Your task to perform on an android device: turn vacation reply on in the gmail app Image 0: 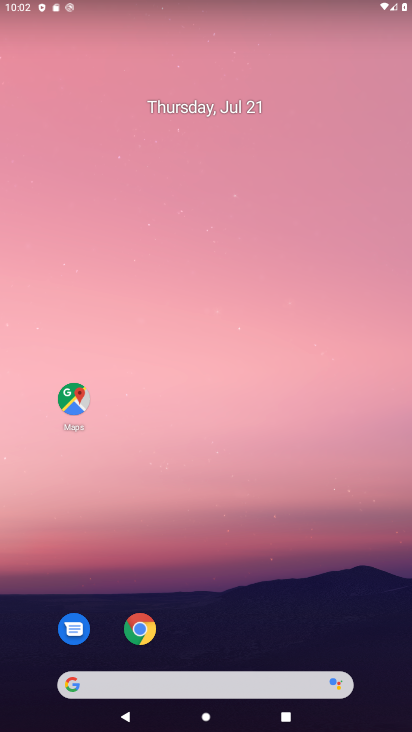
Step 0: drag from (277, 627) to (324, 174)
Your task to perform on an android device: turn vacation reply on in the gmail app Image 1: 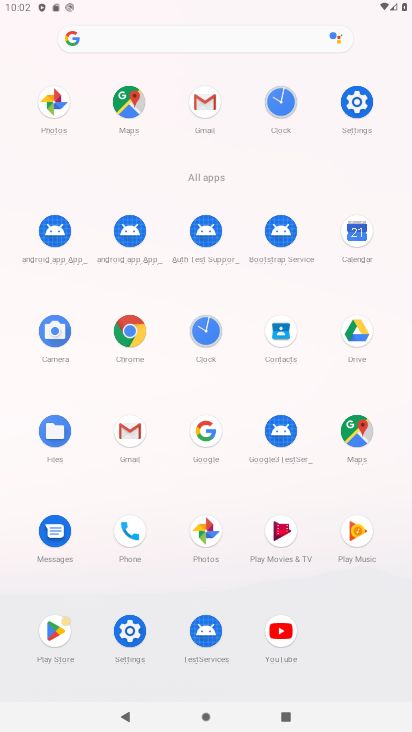
Step 1: click (203, 101)
Your task to perform on an android device: turn vacation reply on in the gmail app Image 2: 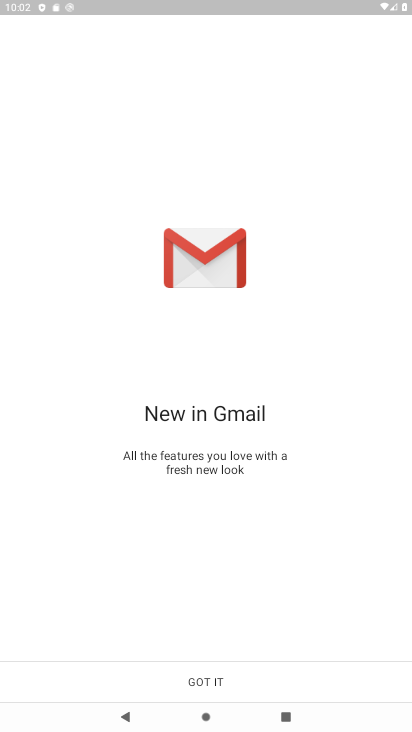
Step 2: click (201, 679)
Your task to perform on an android device: turn vacation reply on in the gmail app Image 3: 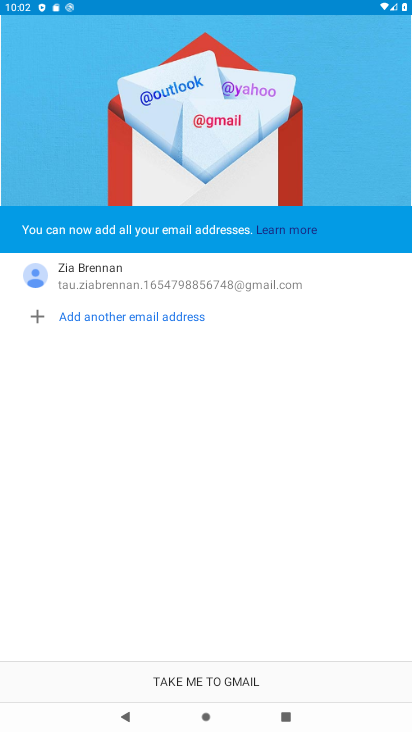
Step 3: click (203, 680)
Your task to perform on an android device: turn vacation reply on in the gmail app Image 4: 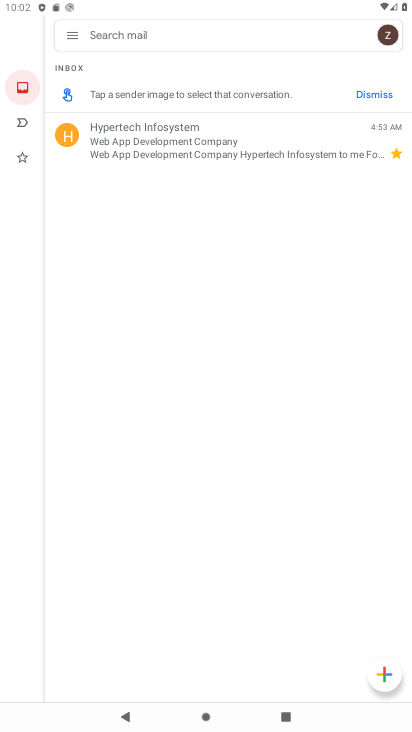
Step 4: click (70, 36)
Your task to perform on an android device: turn vacation reply on in the gmail app Image 5: 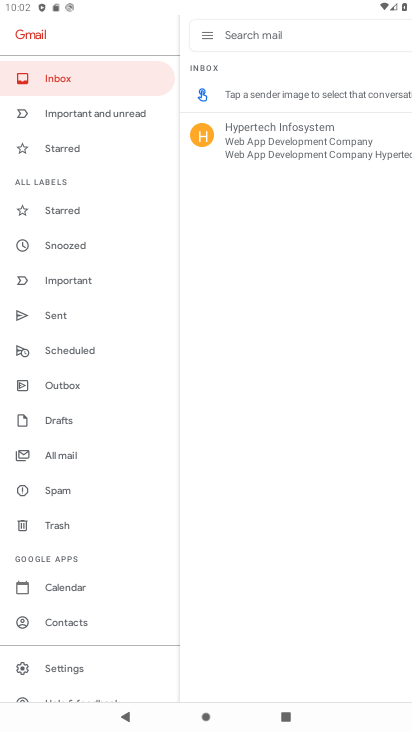
Step 5: click (68, 669)
Your task to perform on an android device: turn vacation reply on in the gmail app Image 6: 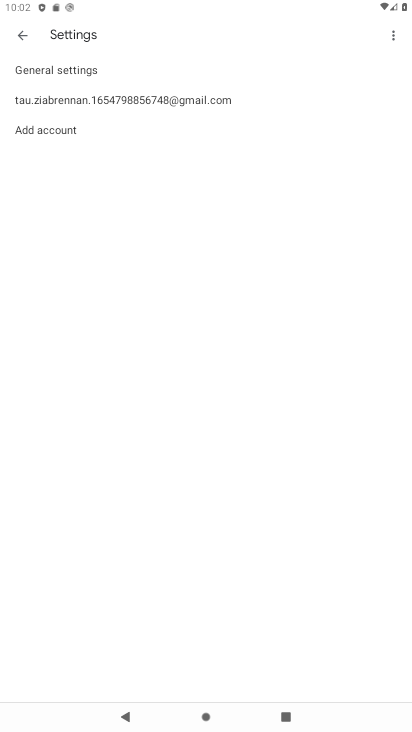
Step 6: click (88, 99)
Your task to perform on an android device: turn vacation reply on in the gmail app Image 7: 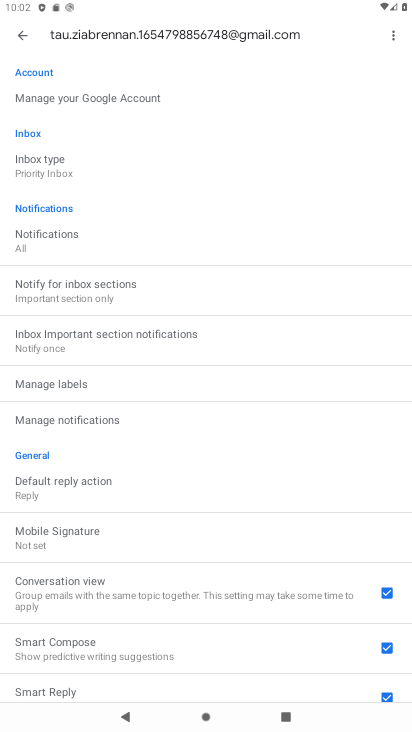
Step 7: drag from (117, 559) to (139, 353)
Your task to perform on an android device: turn vacation reply on in the gmail app Image 8: 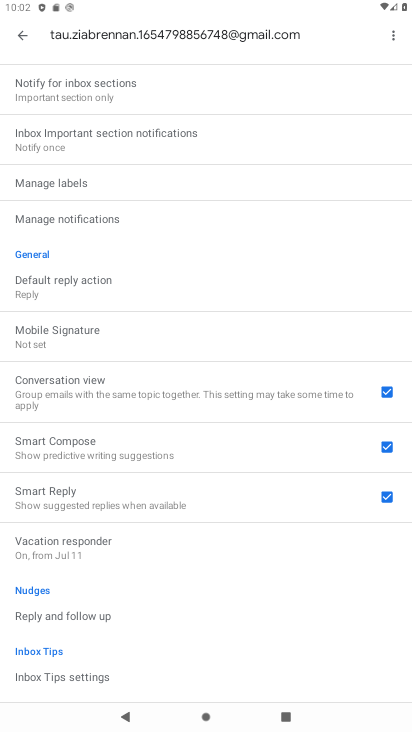
Step 8: click (102, 549)
Your task to perform on an android device: turn vacation reply on in the gmail app Image 9: 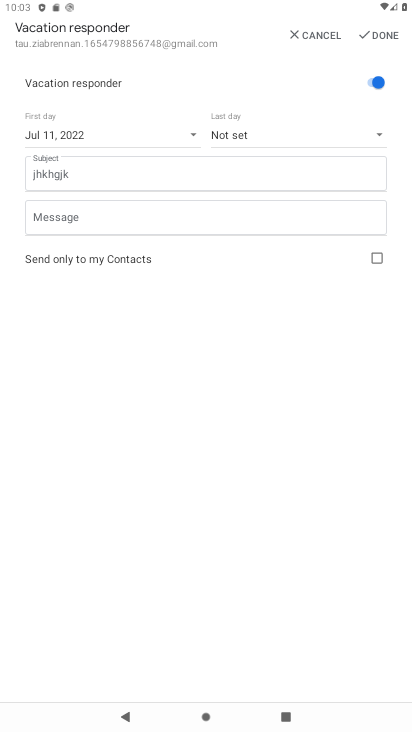
Step 9: click (389, 34)
Your task to perform on an android device: turn vacation reply on in the gmail app Image 10: 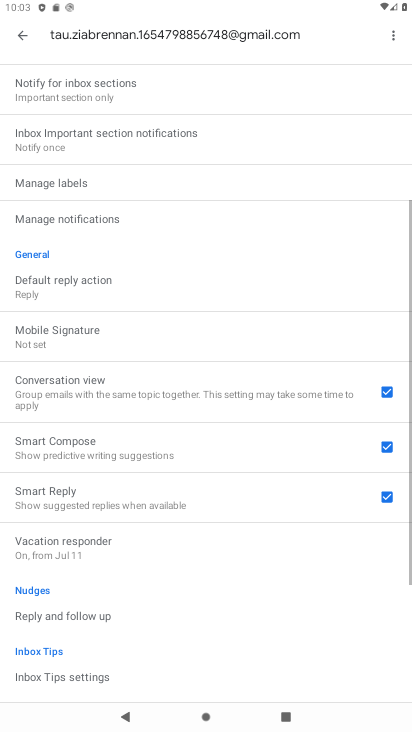
Step 10: task complete